Your task to perform on an android device: Open Wikipedia Image 0: 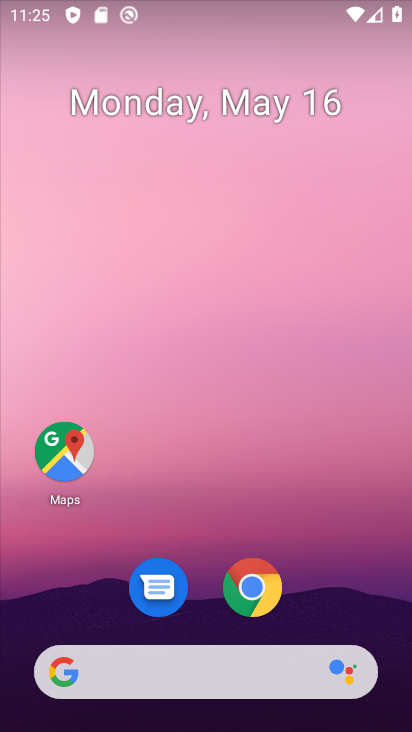
Step 0: drag from (343, 593) to (292, 186)
Your task to perform on an android device: Open Wikipedia Image 1: 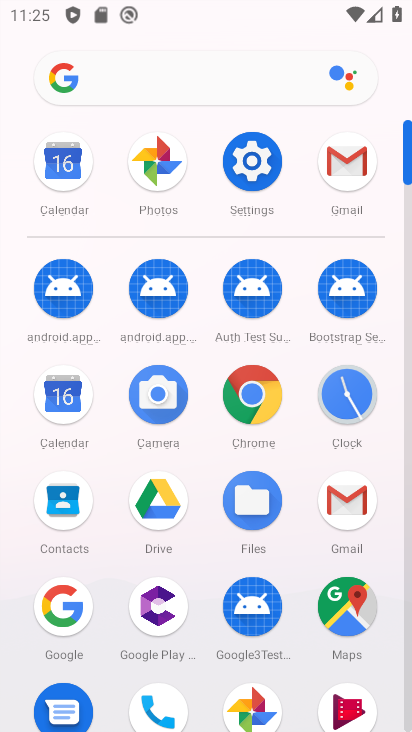
Step 1: click (257, 409)
Your task to perform on an android device: Open Wikipedia Image 2: 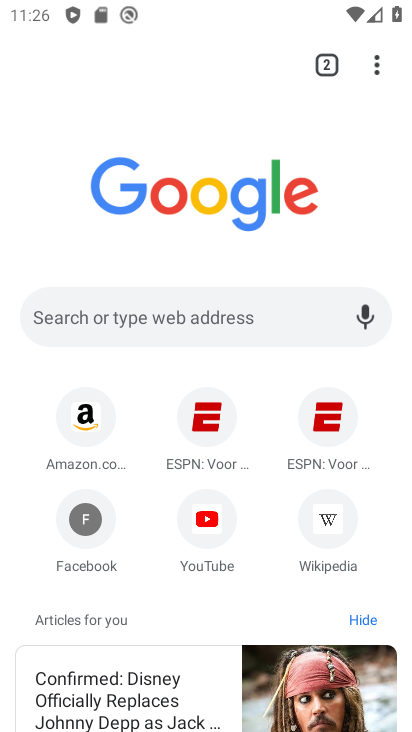
Step 2: click (334, 516)
Your task to perform on an android device: Open Wikipedia Image 3: 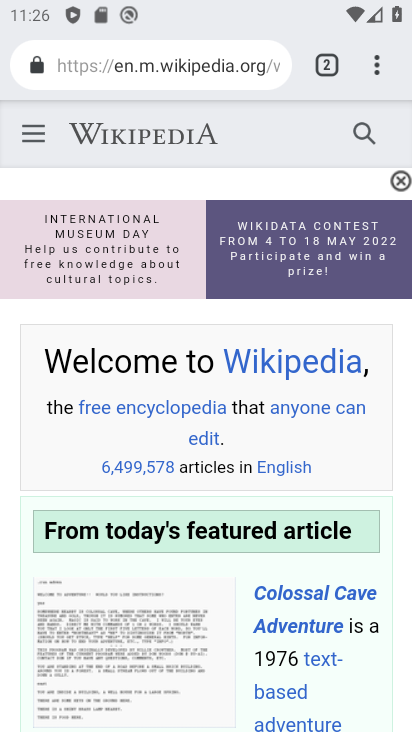
Step 3: task complete